Your task to perform on an android device: Go to location settings Image 0: 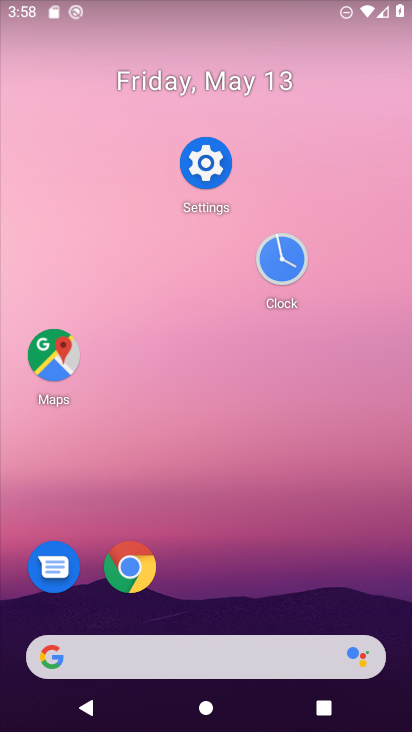
Step 0: click (44, 363)
Your task to perform on an android device: Go to location settings Image 1: 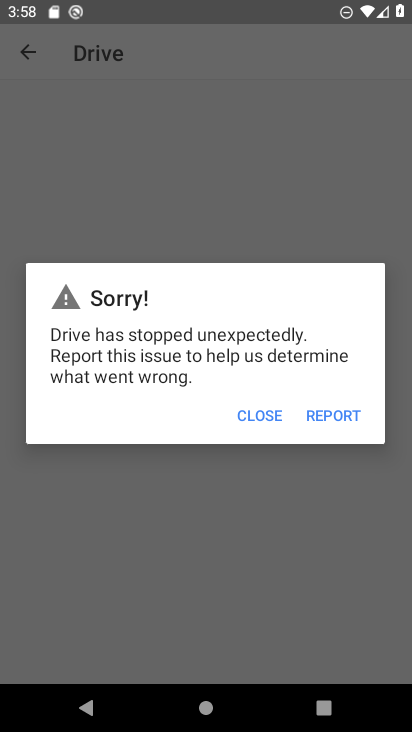
Step 1: press home button
Your task to perform on an android device: Go to location settings Image 2: 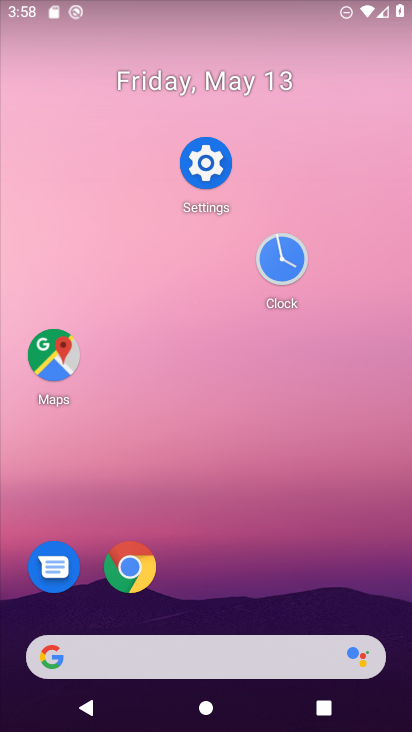
Step 2: click (200, 224)
Your task to perform on an android device: Go to location settings Image 3: 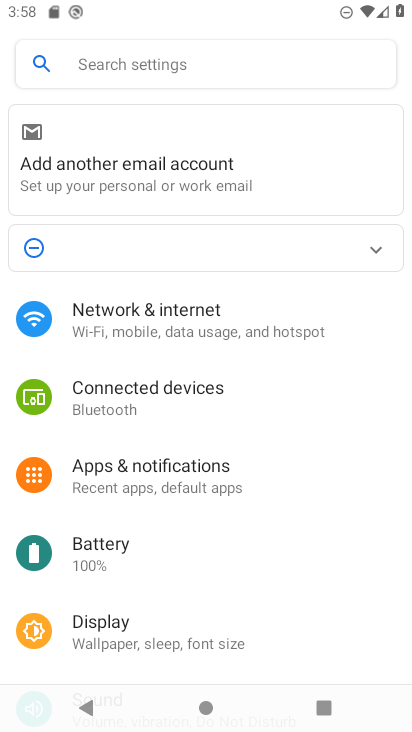
Step 3: drag from (137, 580) to (207, 372)
Your task to perform on an android device: Go to location settings Image 4: 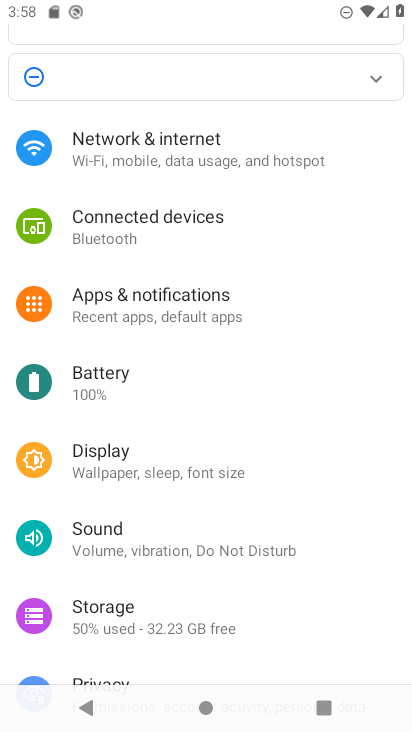
Step 4: drag from (198, 578) to (221, 467)
Your task to perform on an android device: Go to location settings Image 5: 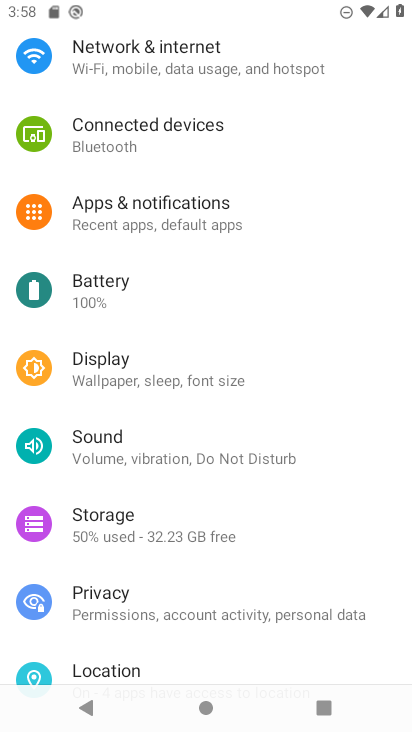
Step 5: drag from (155, 611) to (203, 394)
Your task to perform on an android device: Go to location settings Image 6: 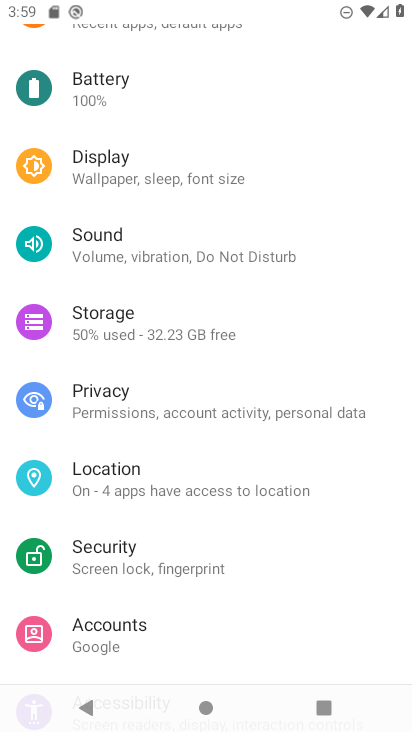
Step 6: click (223, 497)
Your task to perform on an android device: Go to location settings Image 7: 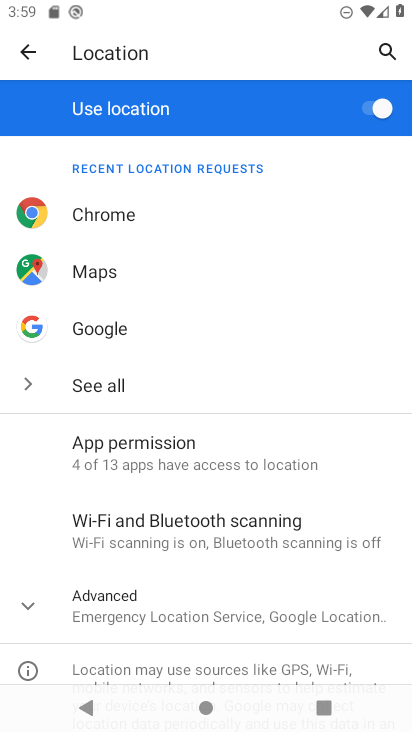
Step 7: task complete